Your task to perform on an android device: turn off picture-in-picture Image 0: 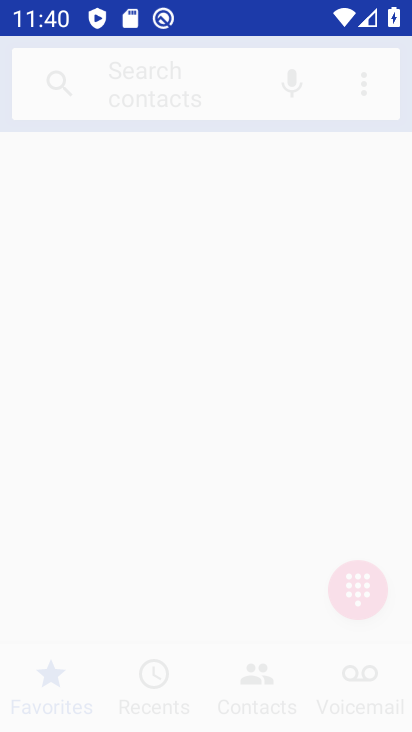
Step 0: drag from (313, 547) to (265, 108)
Your task to perform on an android device: turn off picture-in-picture Image 1: 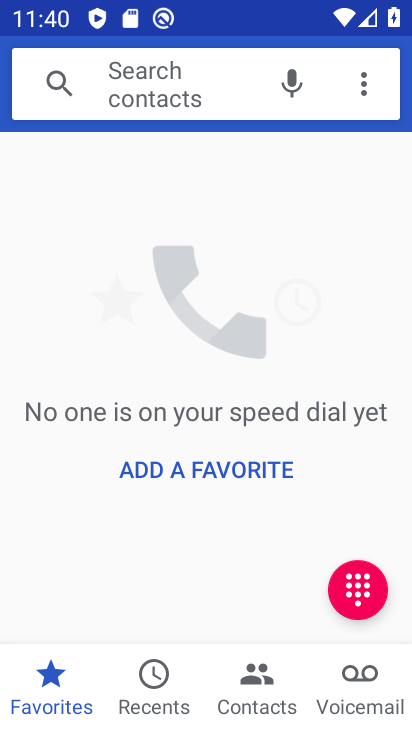
Step 1: press home button
Your task to perform on an android device: turn off picture-in-picture Image 2: 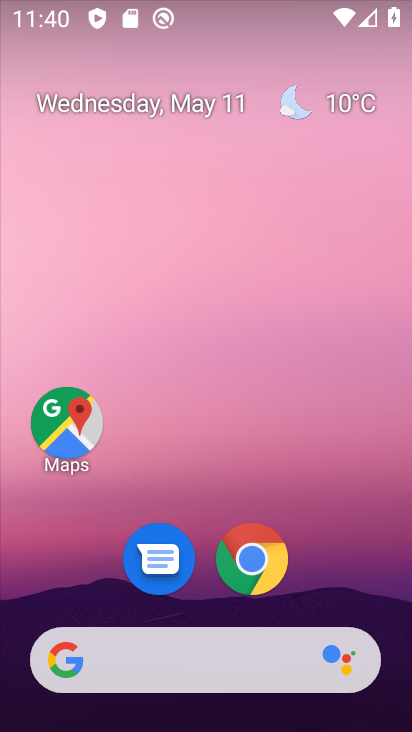
Step 2: drag from (330, 575) to (278, 196)
Your task to perform on an android device: turn off picture-in-picture Image 3: 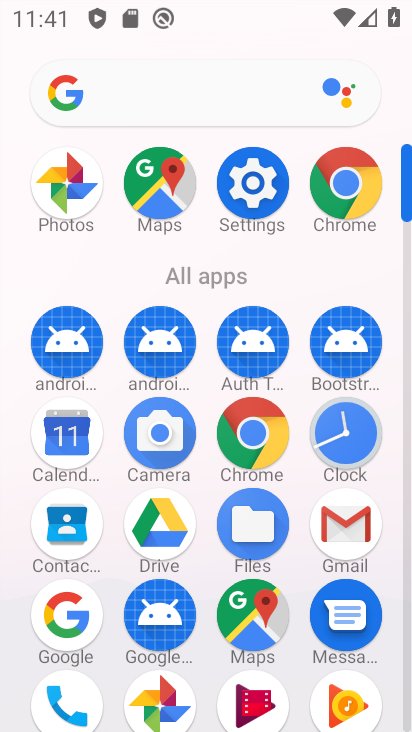
Step 3: drag from (205, 579) to (214, 235)
Your task to perform on an android device: turn off picture-in-picture Image 4: 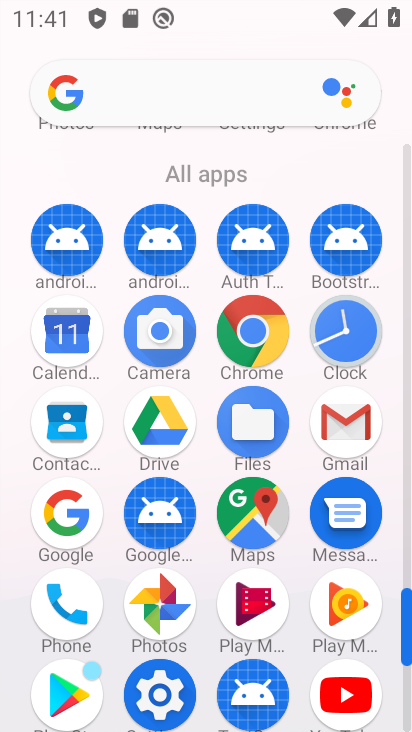
Step 4: click (163, 700)
Your task to perform on an android device: turn off picture-in-picture Image 5: 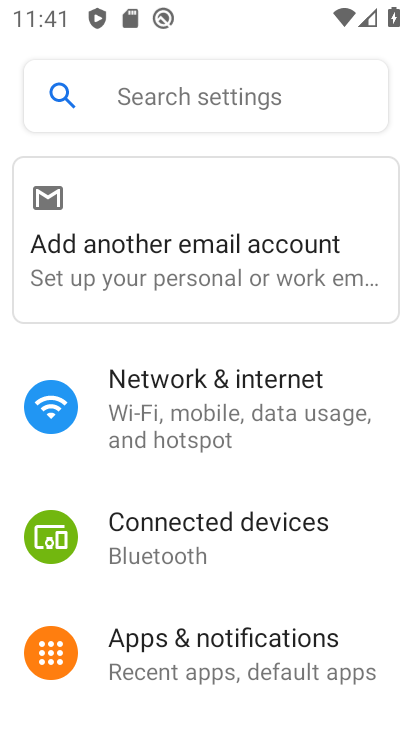
Step 5: click (195, 670)
Your task to perform on an android device: turn off picture-in-picture Image 6: 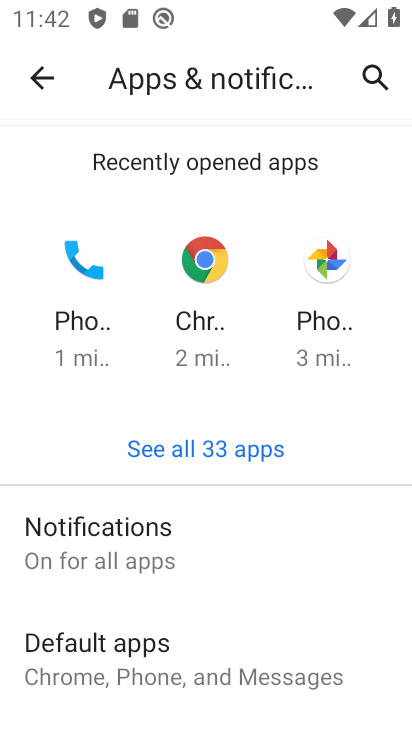
Step 6: drag from (233, 660) to (292, 298)
Your task to perform on an android device: turn off picture-in-picture Image 7: 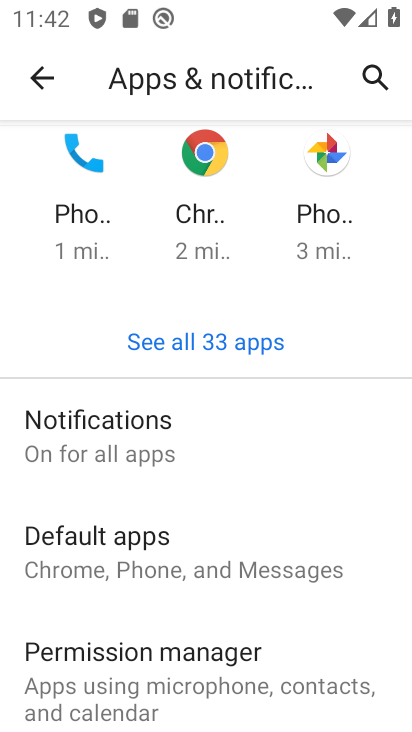
Step 7: drag from (148, 595) to (187, 324)
Your task to perform on an android device: turn off picture-in-picture Image 8: 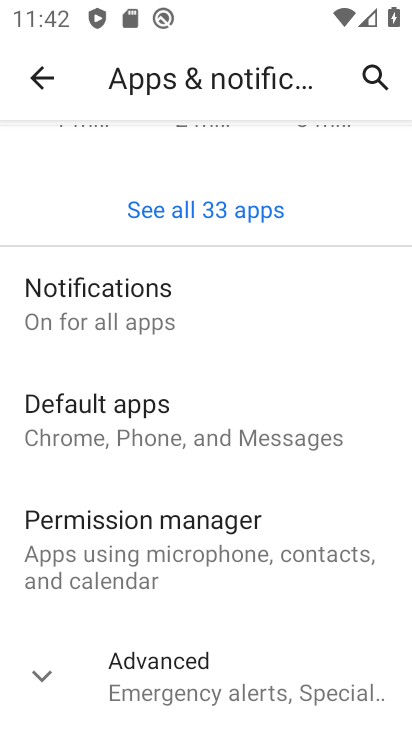
Step 8: click (149, 685)
Your task to perform on an android device: turn off picture-in-picture Image 9: 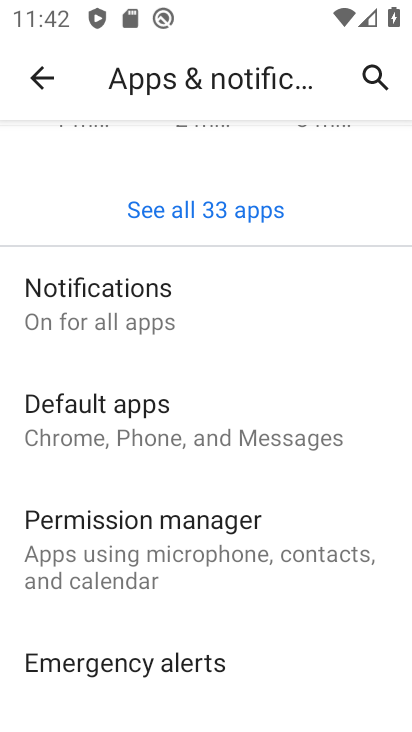
Step 9: drag from (153, 571) to (106, 346)
Your task to perform on an android device: turn off picture-in-picture Image 10: 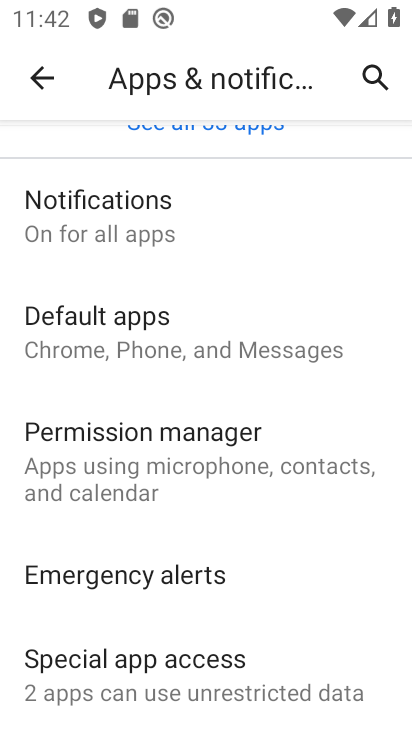
Step 10: click (165, 684)
Your task to perform on an android device: turn off picture-in-picture Image 11: 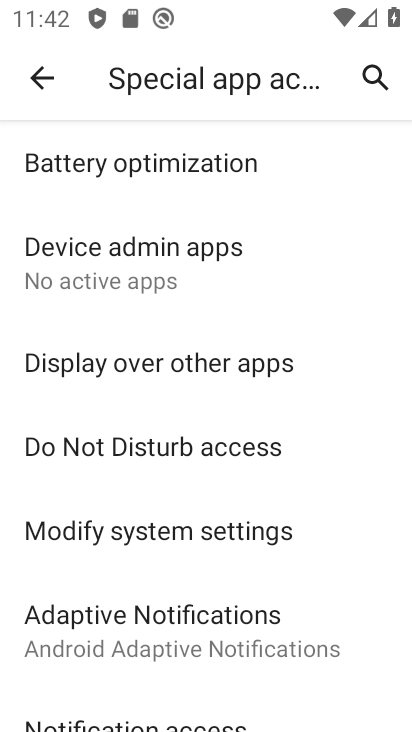
Step 11: drag from (171, 675) to (161, 325)
Your task to perform on an android device: turn off picture-in-picture Image 12: 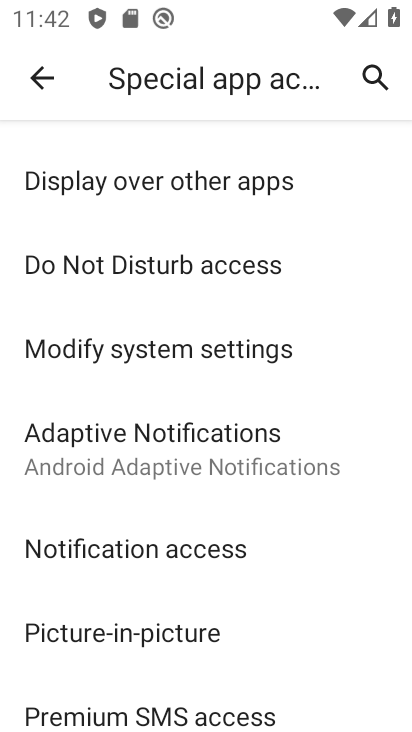
Step 12: click (168, 634)
Your task to perform on an android device: turn off picture-in-picture Image 13: 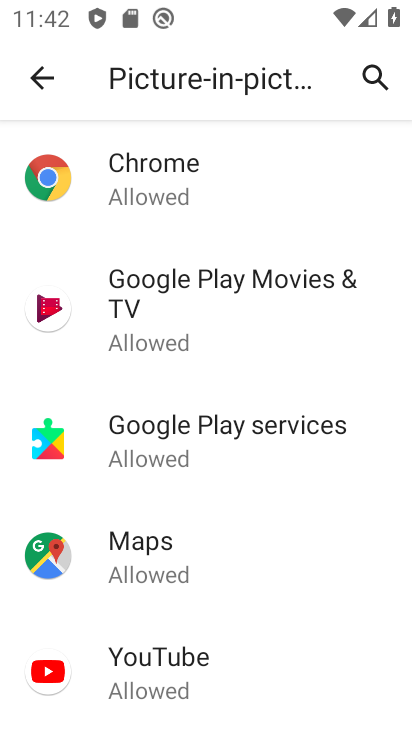
Step 13: click (116, 183)
Your task to perform on an android device: turn off picture-in-picture Image 14: 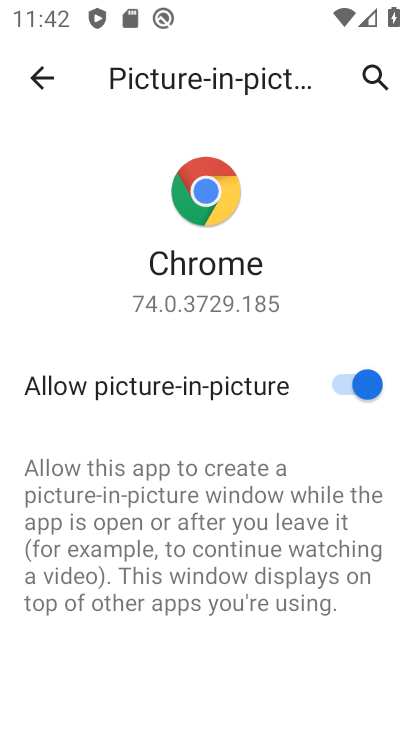
Step 14: click (347, 394)
Your task to perform on an android device: turn off picture-in-picture Image 15: 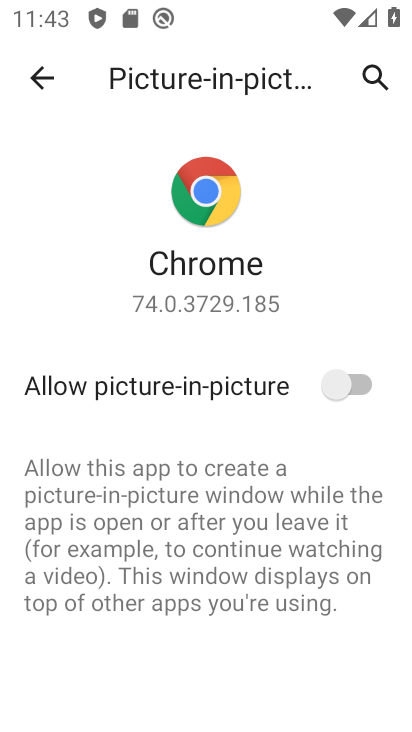
Step 15: task complete